Your task to perform on an android device: Open display settings Image 0: 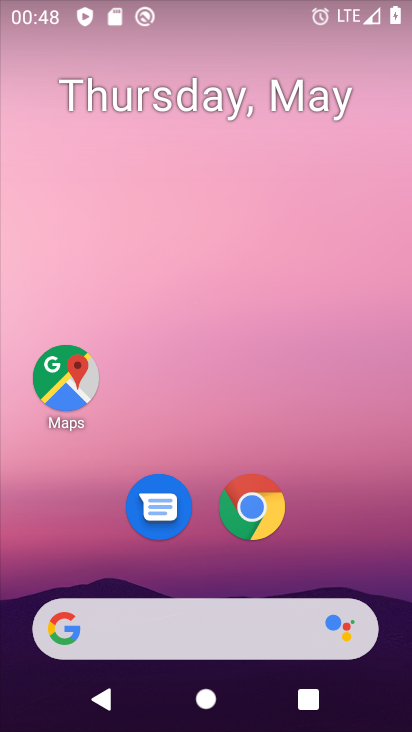
Step 0: drag from (204, 577) to (209, 201)
Your task to perform on an android device: Open display settings Image 1: 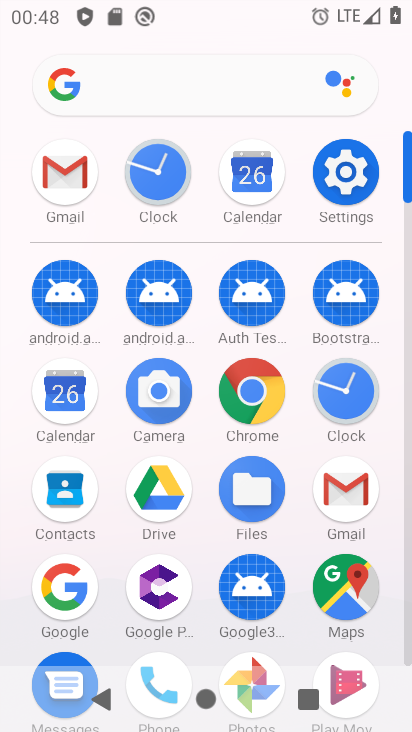
Step 1: click (333, 173)
Your task to perform on an android device: Open display settings Image 2: 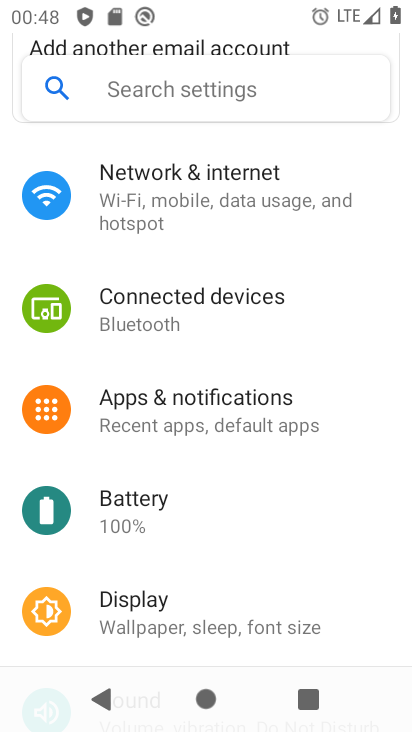
Step 2: click (200, 630)
Your task to perform on an android device: Open display settings Image 3: 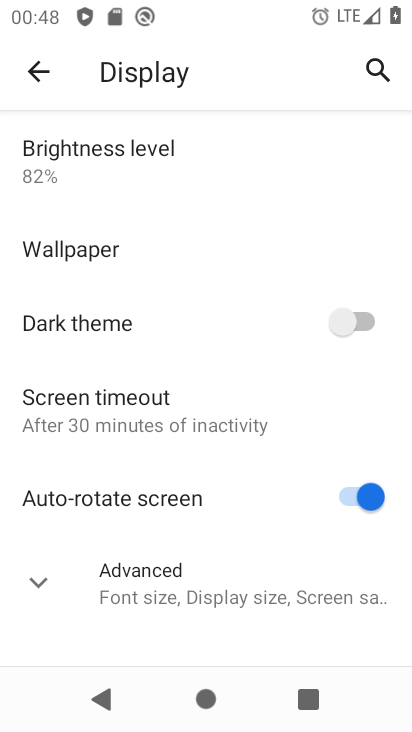
Step 3: task complete